Your task to perform on an android device: stop showing notifications on the lock screen Image 0: 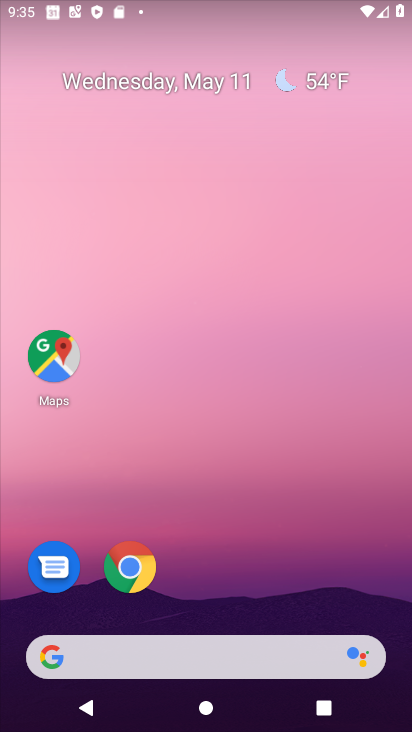
Step 0: drag from (211, 582) to (278, 31)
Your task to perform on an android device: stop showing notifications on the lock screen Image 1: 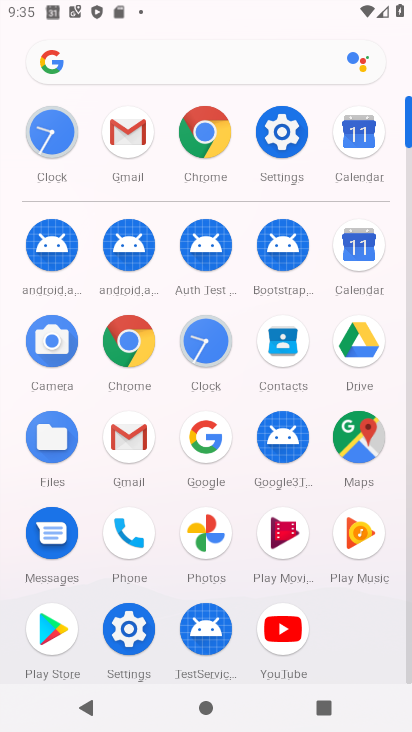
Step 1: click (281, 156)
Your task to perform on an android device: stop showing notifications on the lock screen Image 2: 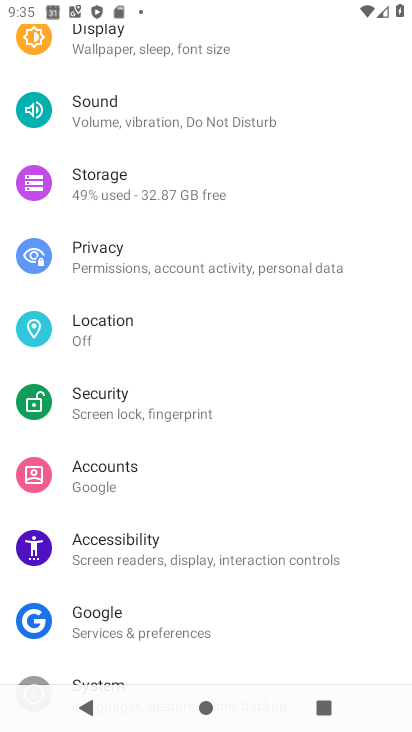
Step 2: drag from (154, 538) to (215, 212)
Your task to perform on an android device: stop showing notifications on the lock screen Image 3: 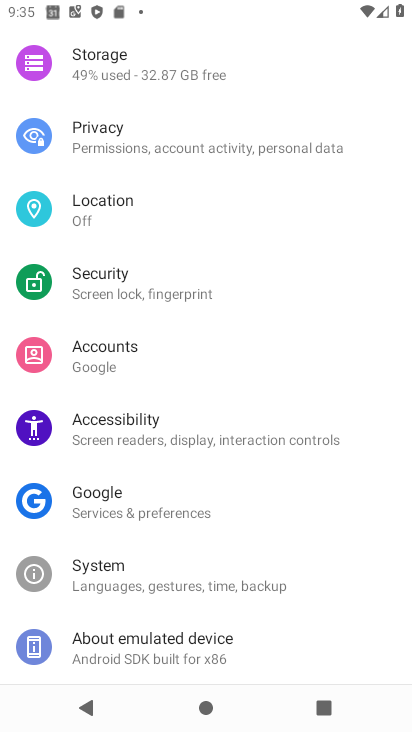
Step 3: drag from (194, 128) to (91, 730)
Your task to perform on an android device: stop showing notifications on the lock screen Image 4: 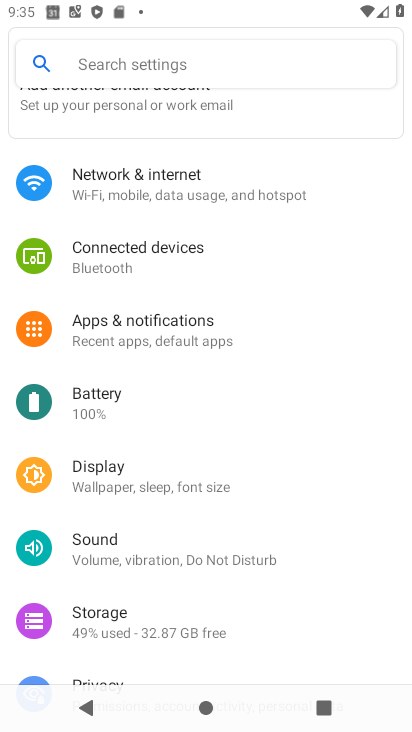
Step 4: drag from (214, 215) to (205, 729)
Your task to perform on an android device: stop showing notifications on the lock screen Image 5: 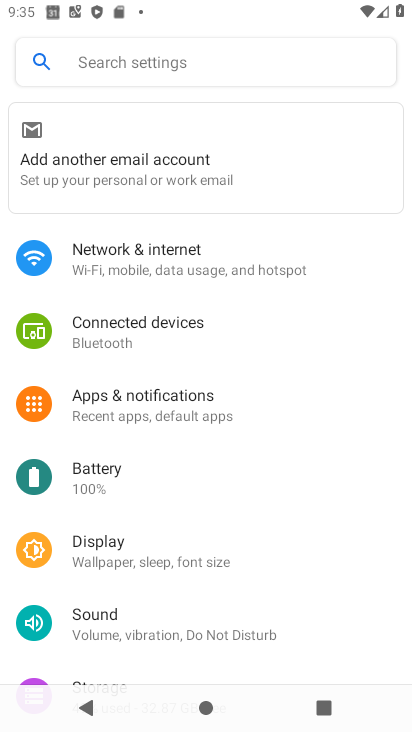
Step 5: click (177, 403)
Your task to perform on an android device: stop showing notifications on the lock screen Image 6: 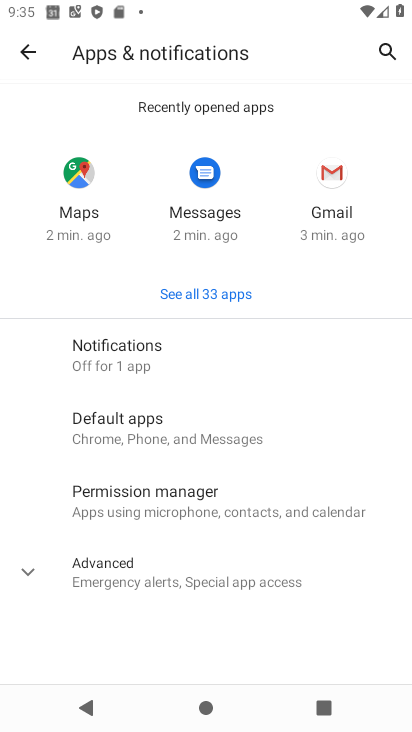
Step 6: click (117, 360)
Your task to perform on an android device: stop showing notifications on the lock screen Image 7: 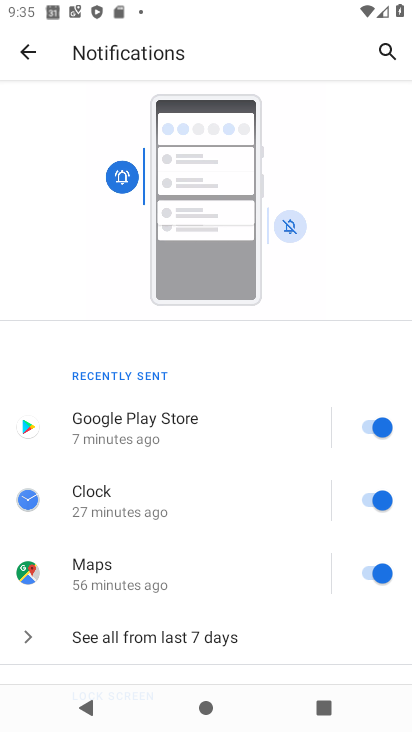
Step 7: drag from (185, 596) to (265, 117)
Your task to perform on an android device: stop showing notifications on the lock screen Image 8: 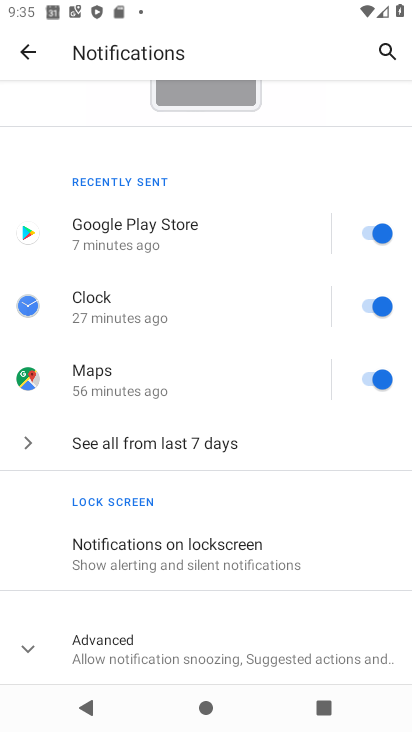
Step 8: click (164, 559)
Your task to perform on an android device: stop showing notifications on the lock screen Image 9: 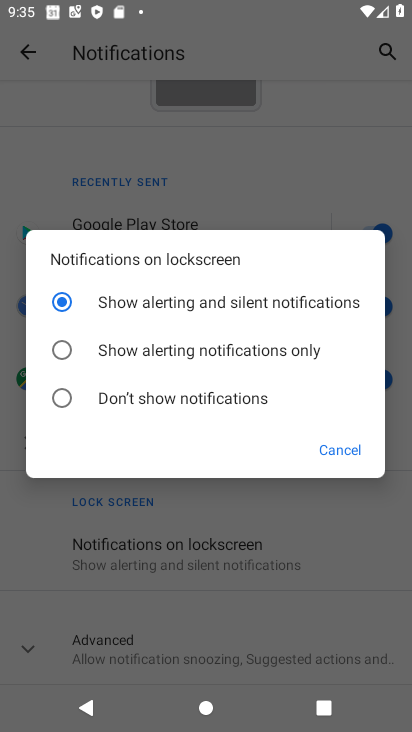
Step 9: click (82, 395)
Your task to perform on an android device: stop showing notifications on the lock screen Image 10: 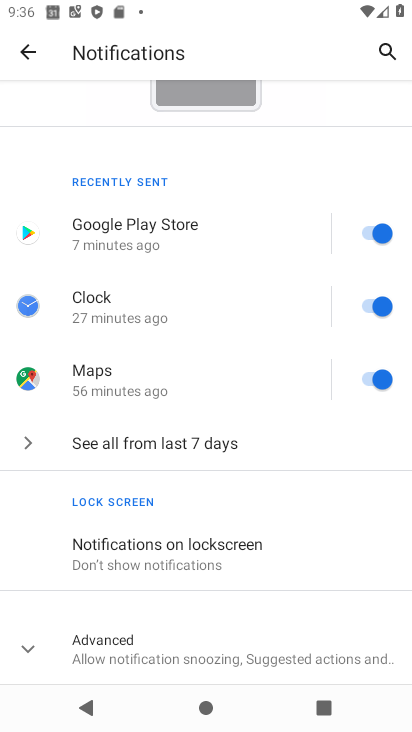
Step 10: task complete